Your task to perform on an android device: Check the weather Image 0: 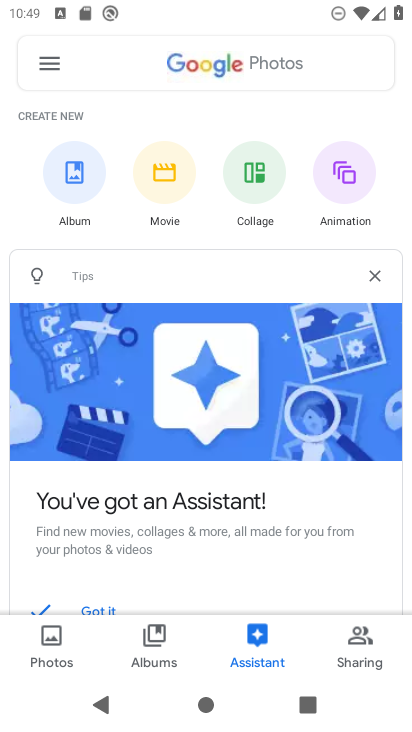
Step 0: press home button
Your task to perform on an android device: Check the weather Image 1: 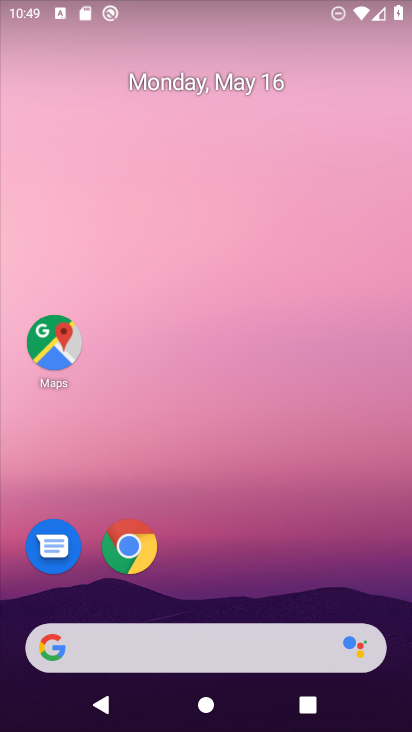
Step 1: click (238, 663)
Your task to perform on an android device: Check the weather Image 2: 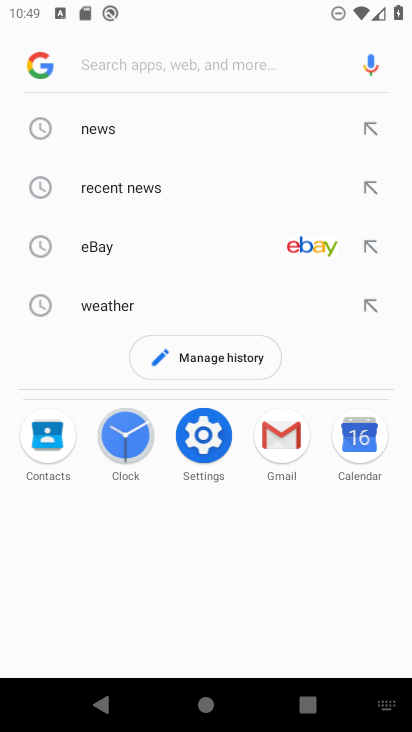
Step 2: click (129, 297)
Your task to perform on an android device: Check the weather Image 3: 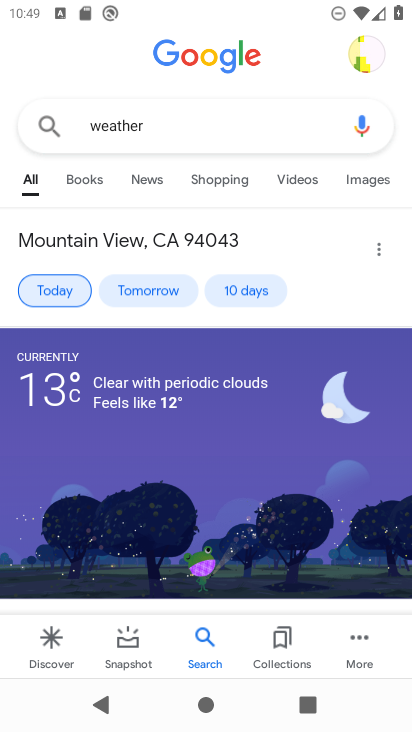
Step 3: task complete